Your task to perform on an android device: Empty the shopping cart on bestbuy.com. Image 0: 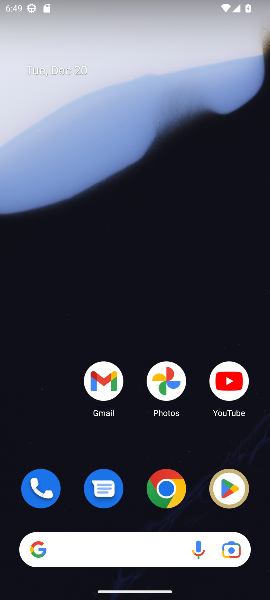
Step 0: press home button
Your task to perform on an android device: Empty the shopping cart on bestbuy.com. Image 1: 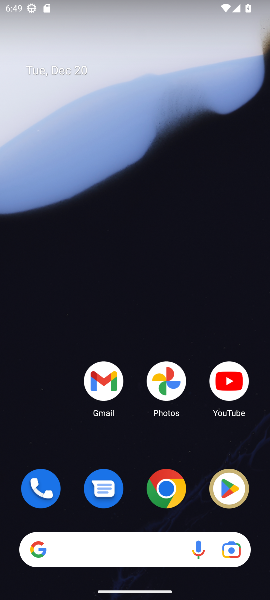
Step 1: drag from (47, 440) to (49, 67)
Your task to perform on an android device: Empty the shopping cart on bestbuy.com. Image 2: 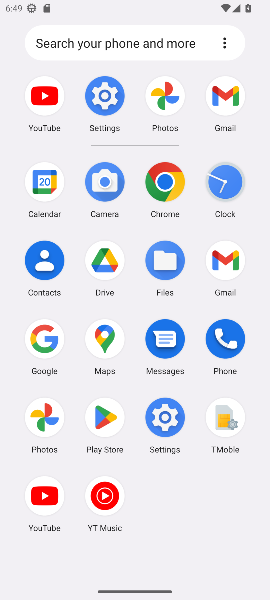
Step 2: click (35, 341)
Your task to perform on an android device: Empty the shopping cart on bestbuy.com. Image 3: 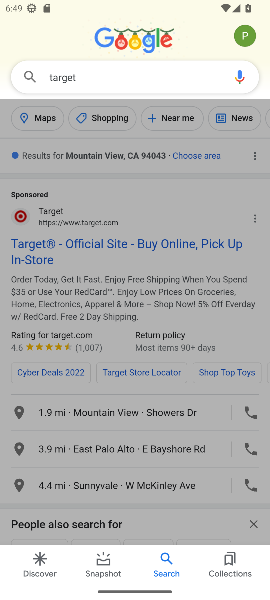
Step 3: click (112, 73)
Your task to perform on an android device: Empty the shopping cart on bestbuy.com. Image 4: 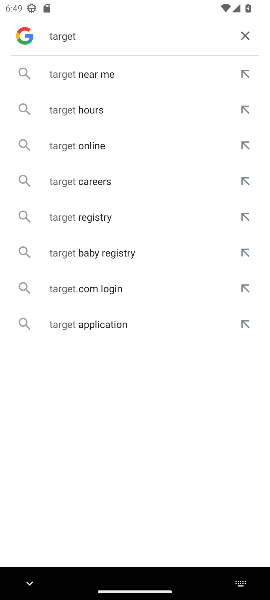
Step 4: click (239, 35)
Your task to perform on an android device: Empty the shopping cart on bestbuy.com. Image 5: 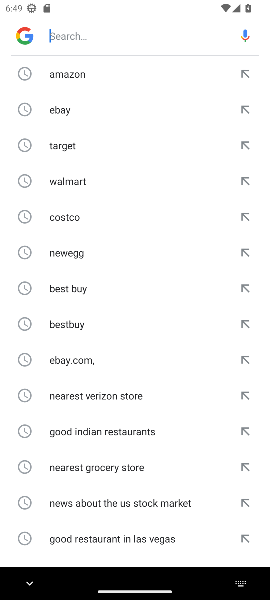
Step 5: type "bestbuy.com"
Your task to perform on an android device: Empty the shopping cart on bestbuy.com. Image 6: 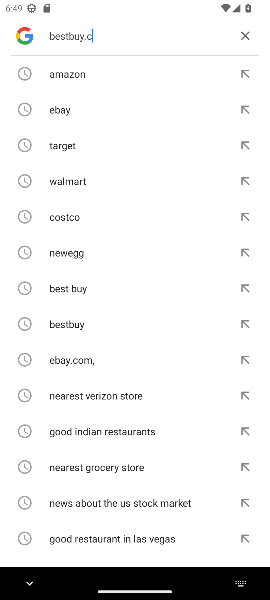
Step 6: press enter
Your task to perform on an android device: Empty the shopping cart on bestbuy.com. Image 7: 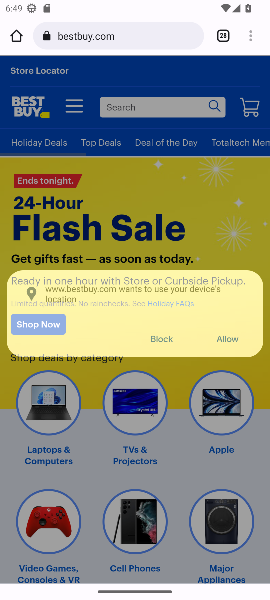
Step 7: click (248, 111)
Your task to perform on an android device: Empty the shopping cart on bestbuy.com. Image 8: 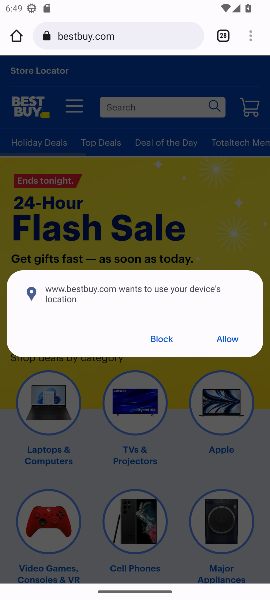
Step 8: click (146, 337)
Your task to perform on an android device: Empty the shopping cart on bestbuy.com. Image 9: 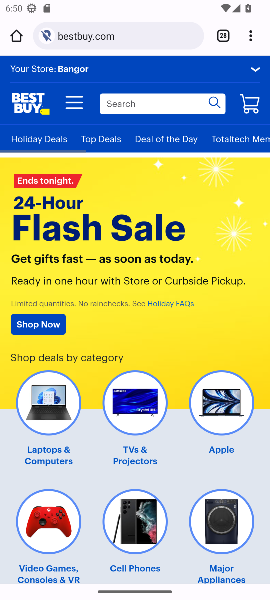
Step 9: click (246, 102)
Your task to perform on an android device: Empty the shopping cart on bestbuy.com. Image 10: 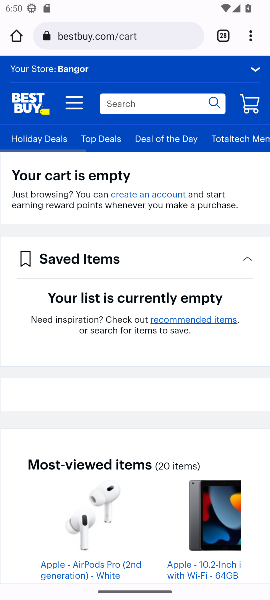
Step 10: task complete